Your task to perform on an android device: empty trash in google photos Image 0: 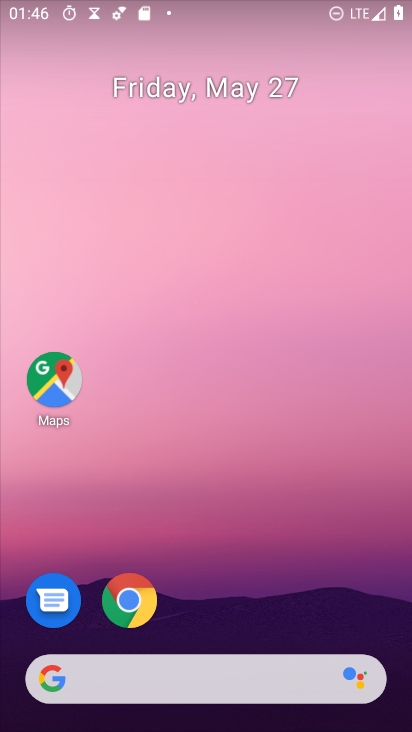
Step 0: drag from (254, 570) to (248, 231)
Your task to perform on an android device: empty trash in google photos Image 1: 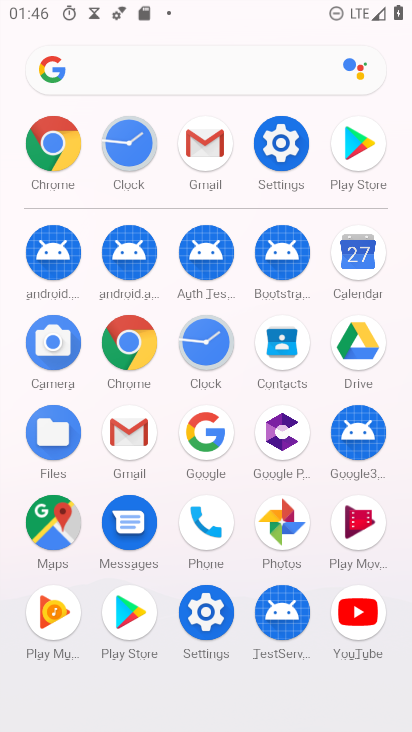
Step 1: click (272, 515)
Your task to perform on an android device: empty trash in google photos Image 2: 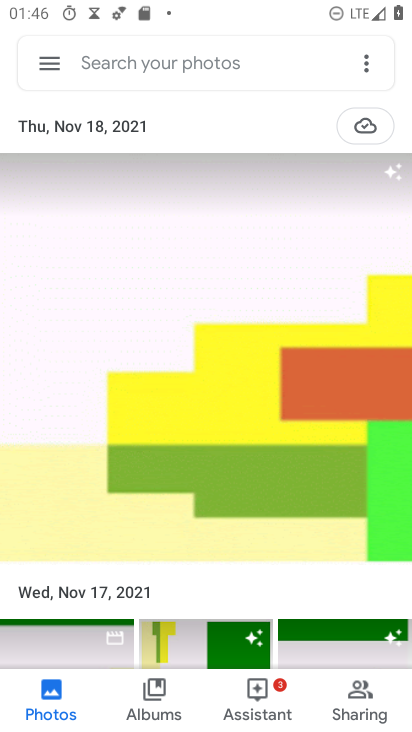
Step 2: click (35, 50)
Your task to perform on an android device: empty trash in google photos Image 3: 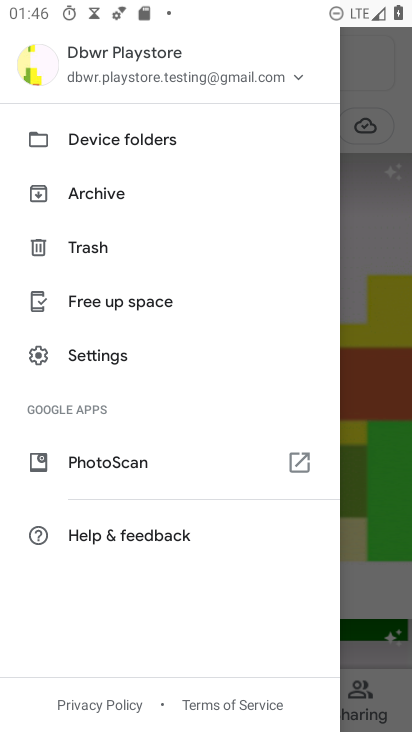
Step 3: click (107, 338)
Your task to perform on an android device: empty trash in google photos Image 4: 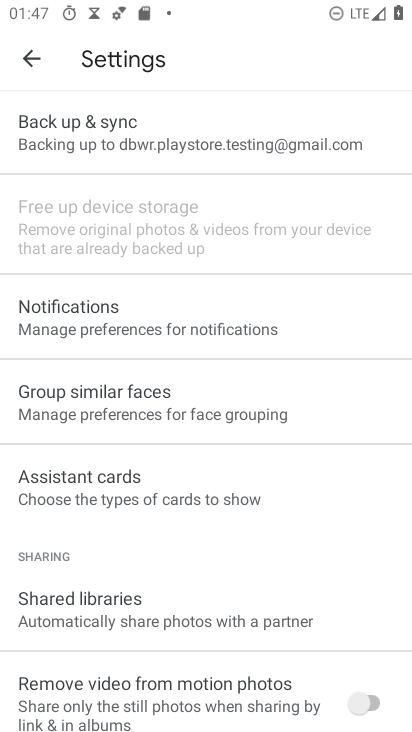
Step 4: drag from (150, 536) to (150, 69)
Your task to perform on an android device: empty trash in google photos Image 5: 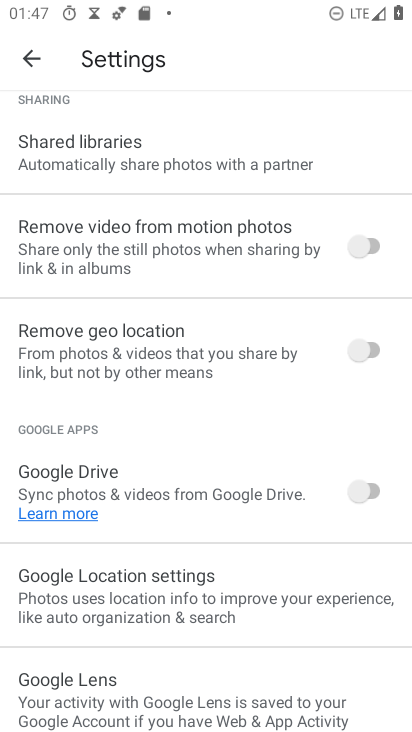
Step 5: drag from (101, 366) to (114, 170)
Your task to perform on an android device: empty trash in google photos Image 6: 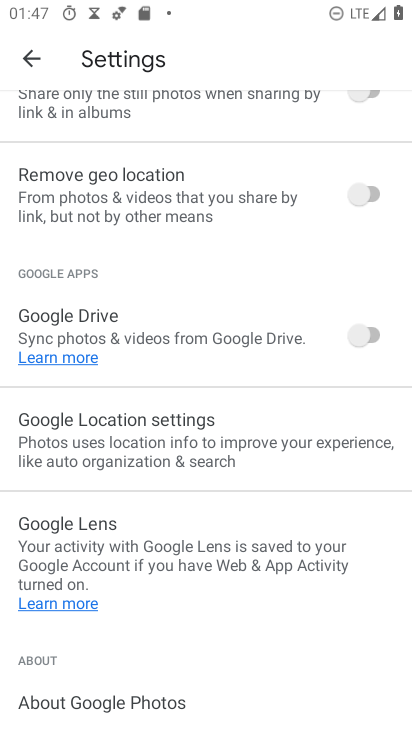
Step 6: drag from (159, 612) to (166, 148)
Your task to perform on an android device: empty trash in google photos Image 7: 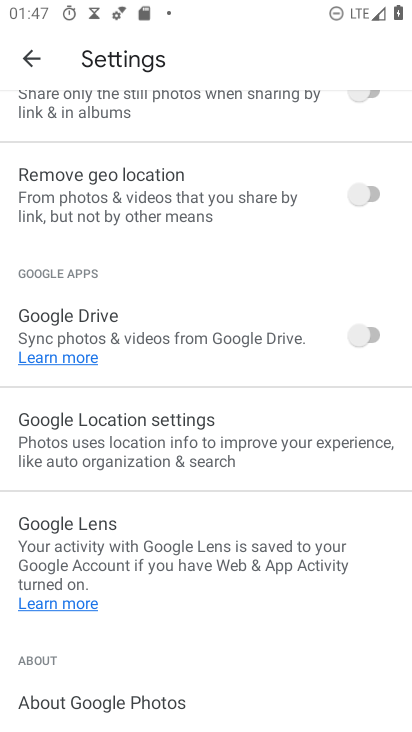
Step 7: click (125, 687)
Your task to perform on an android device: empty trash in google photos Image 8: 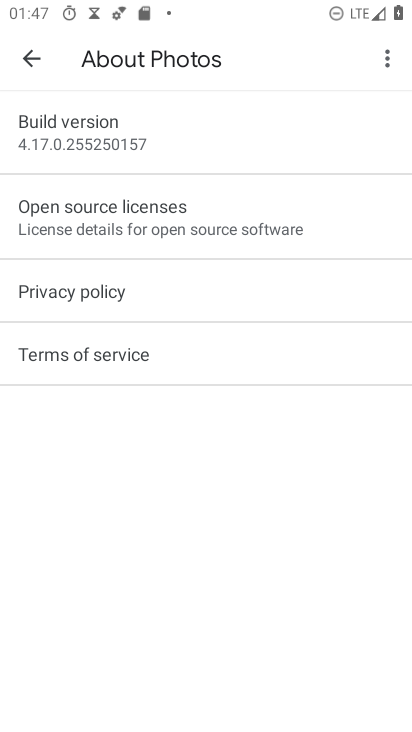
Step 8: press back button
Your task to perform on an android device: empty trash in google photos Image 9: 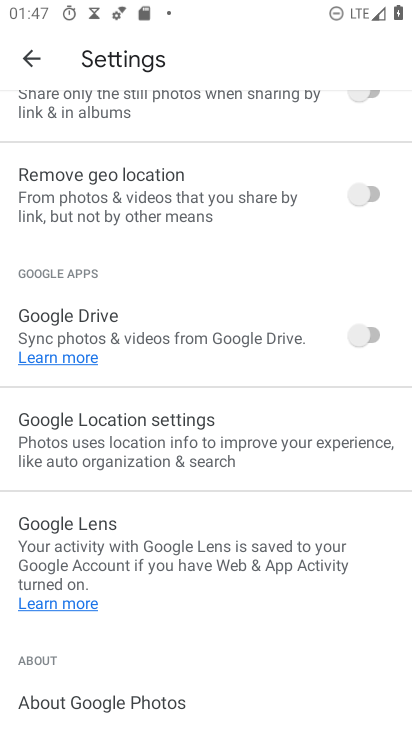
Step 9: drag from (194, 562) to (188, 216)
Your task to perform on an android device: empty trash in google photos Image 10: 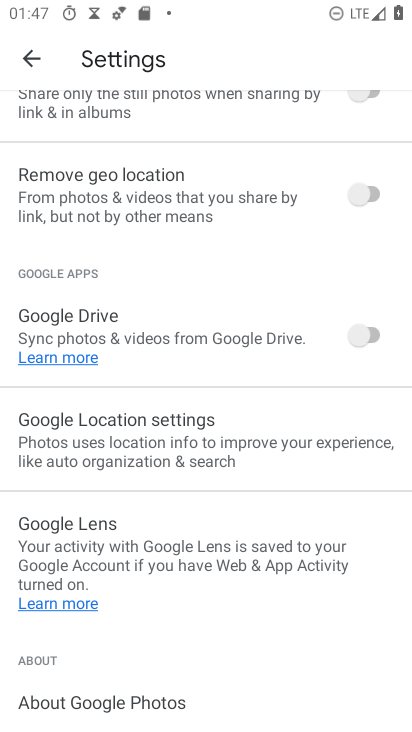
Step 10: drag from (192, 195) to (250, 636)
Your task to perform on an android device: empty trash in google photos Image 11: 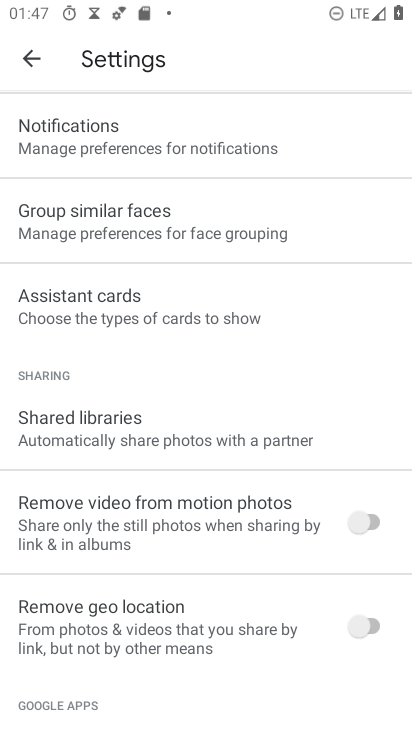
Step 11: drag from (204, 286) to (225, 716)
Your task to perform on an android device: empty trash in google photos Image 12: 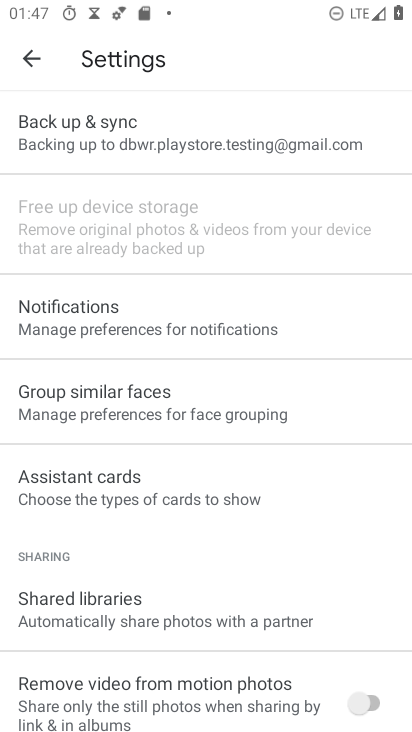
Step 12: drag from (170, 492) to (162, 1)
Your task to perform on an android device: empty trash in google photos Image 13: 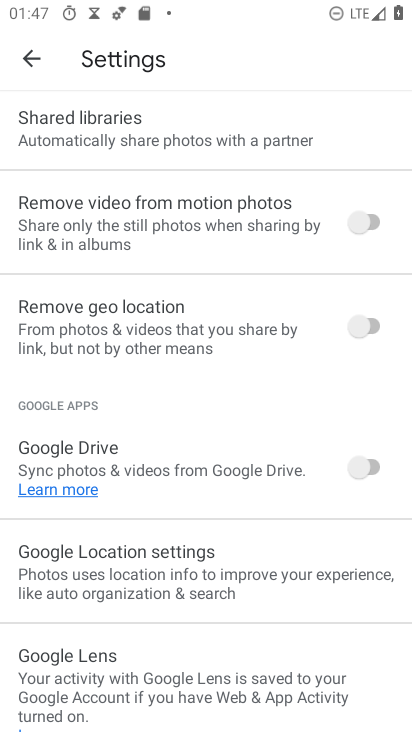
Step 13: drag from (137, 493) to (137, 21)
Your task to perform on an android device: empty trash in google photos Image 14: 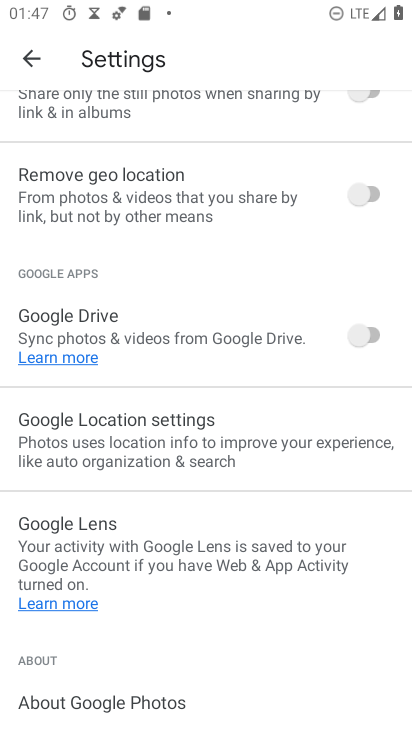
Step 14: drag from (84, 517) to (121, 183)
Your task to perform on an android device: empty trash in google photos Image 15: 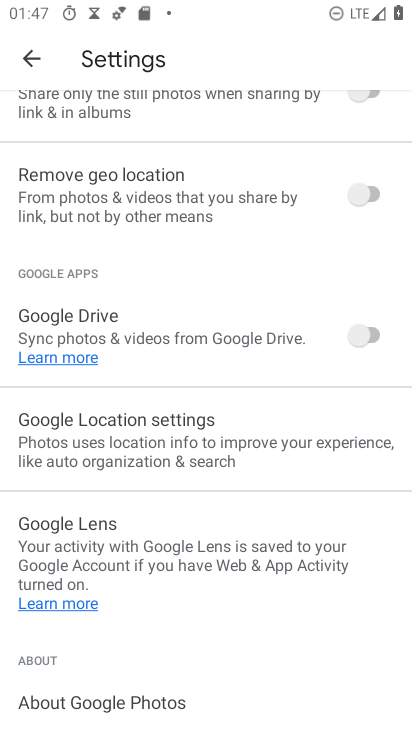
Step 15: press back button
Your task to perform on an android device: empty trash in google photos Image 16: 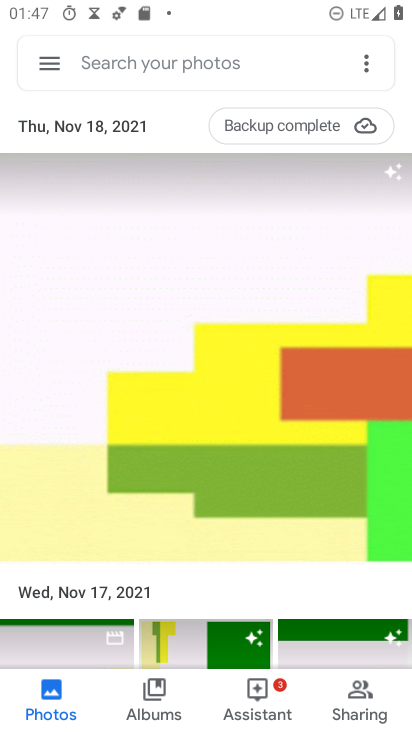
Step 16: click (364, 74)
Your task to perform on an android device: empty trash in google photos Image 17: 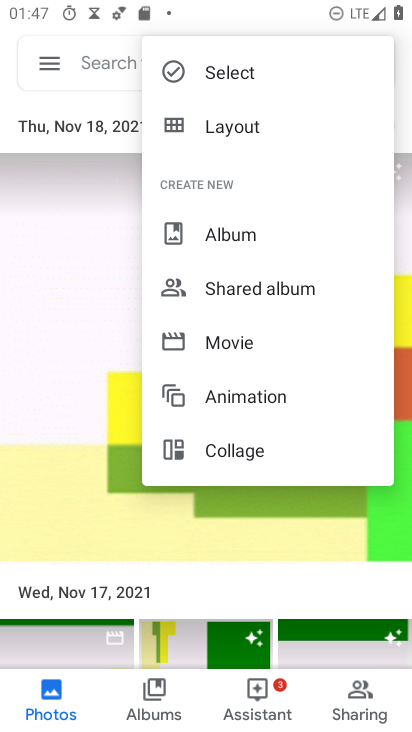
Step 17: click (261, 700)
Your task to perform on an android device: empty trash in google photos Image 18: 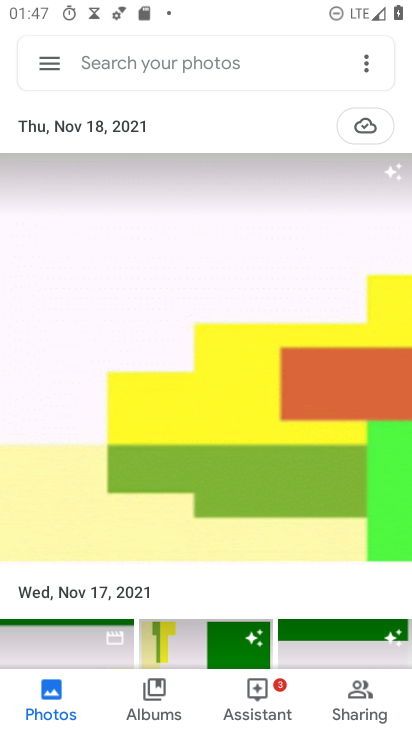
Step 18: click (255, 696)
Your task to perform on an android device: empty trash in google photos Image 19: 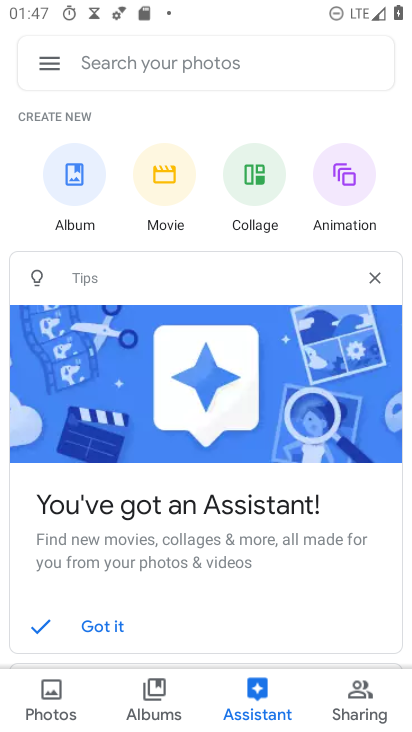
Step 19: task complete